Your task to perform on an android device: Do I have any events tomorrow? Image 0: 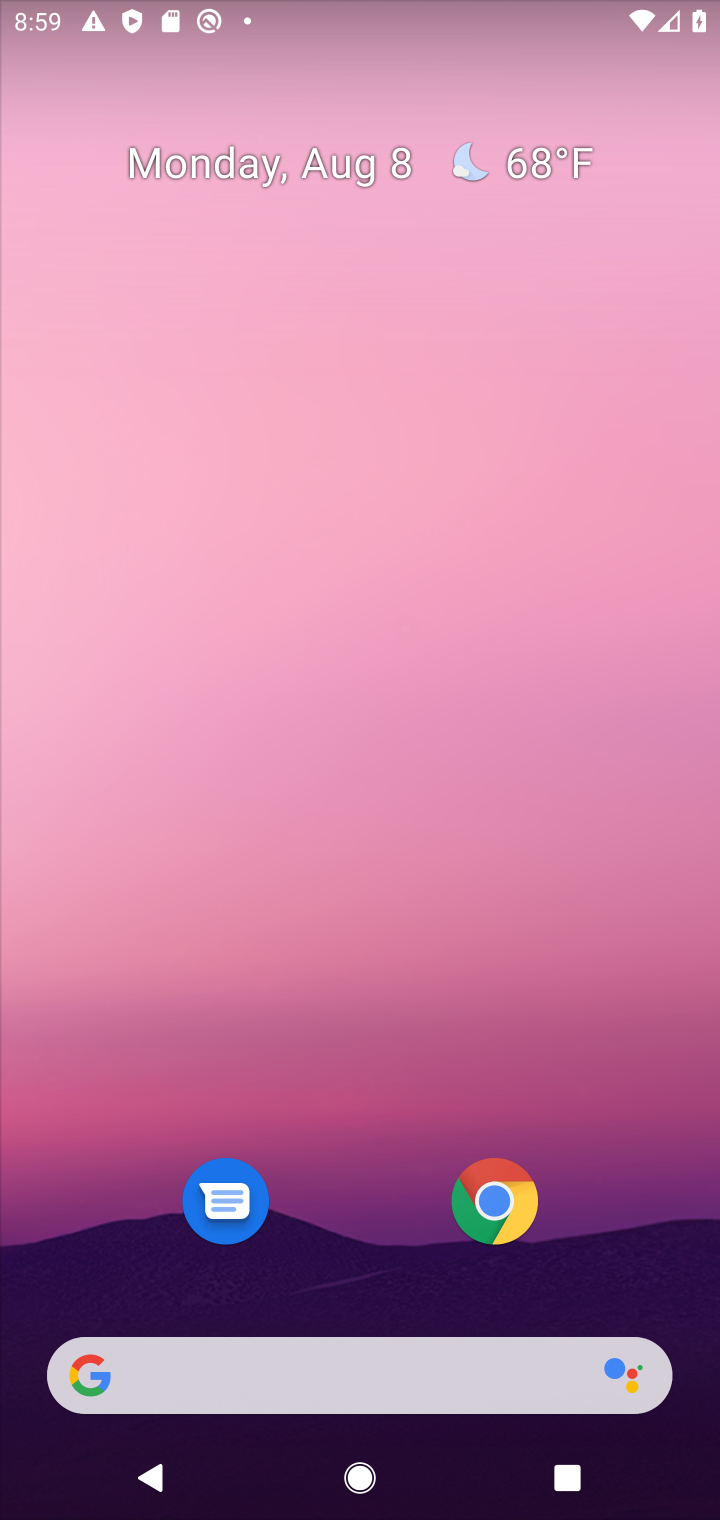
Step 0: press home button
Your task to perform on an android device: Do I have any events tomorrow? Image 1: 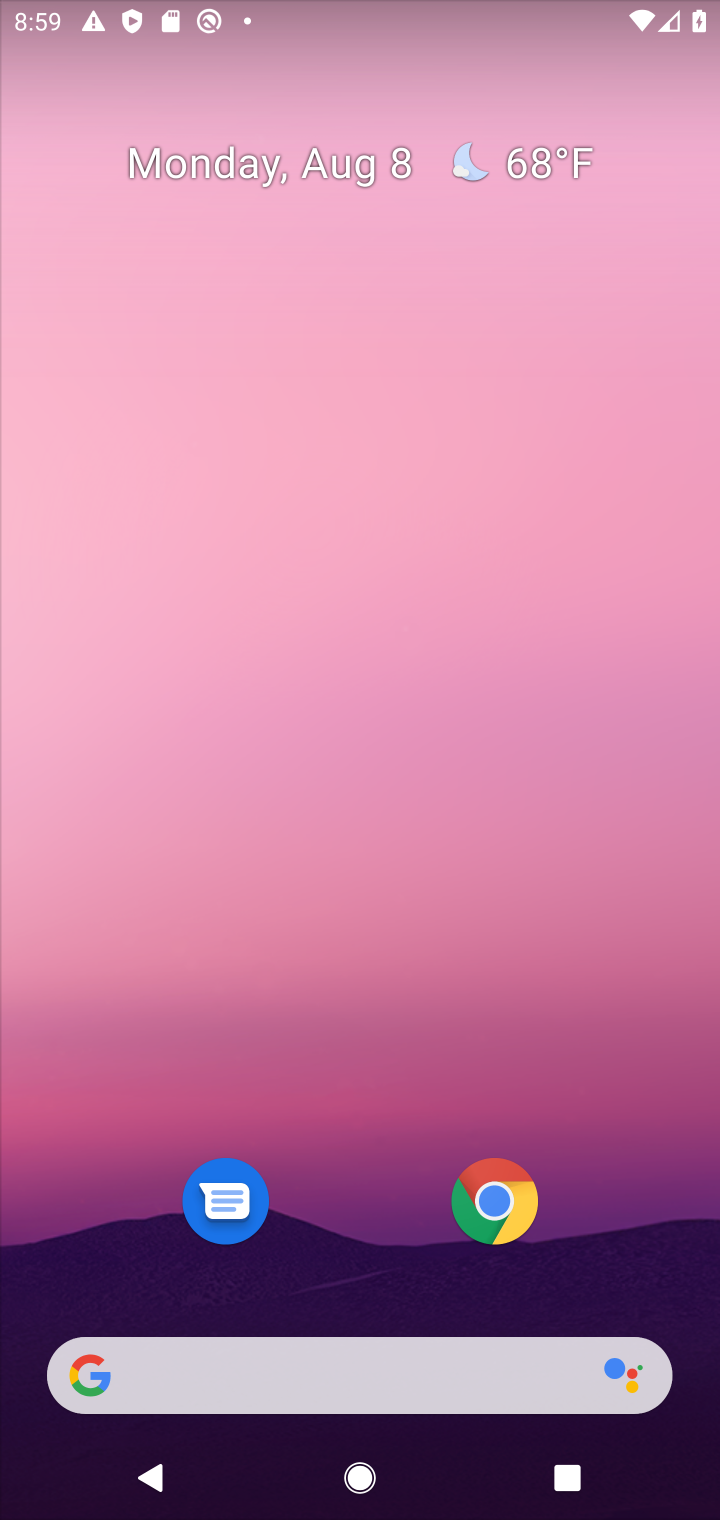
Step 1: drag from (359, 1034) to (429, 200)
Your task to perform on an android device: Do I have any events tomorrow? Image 2: 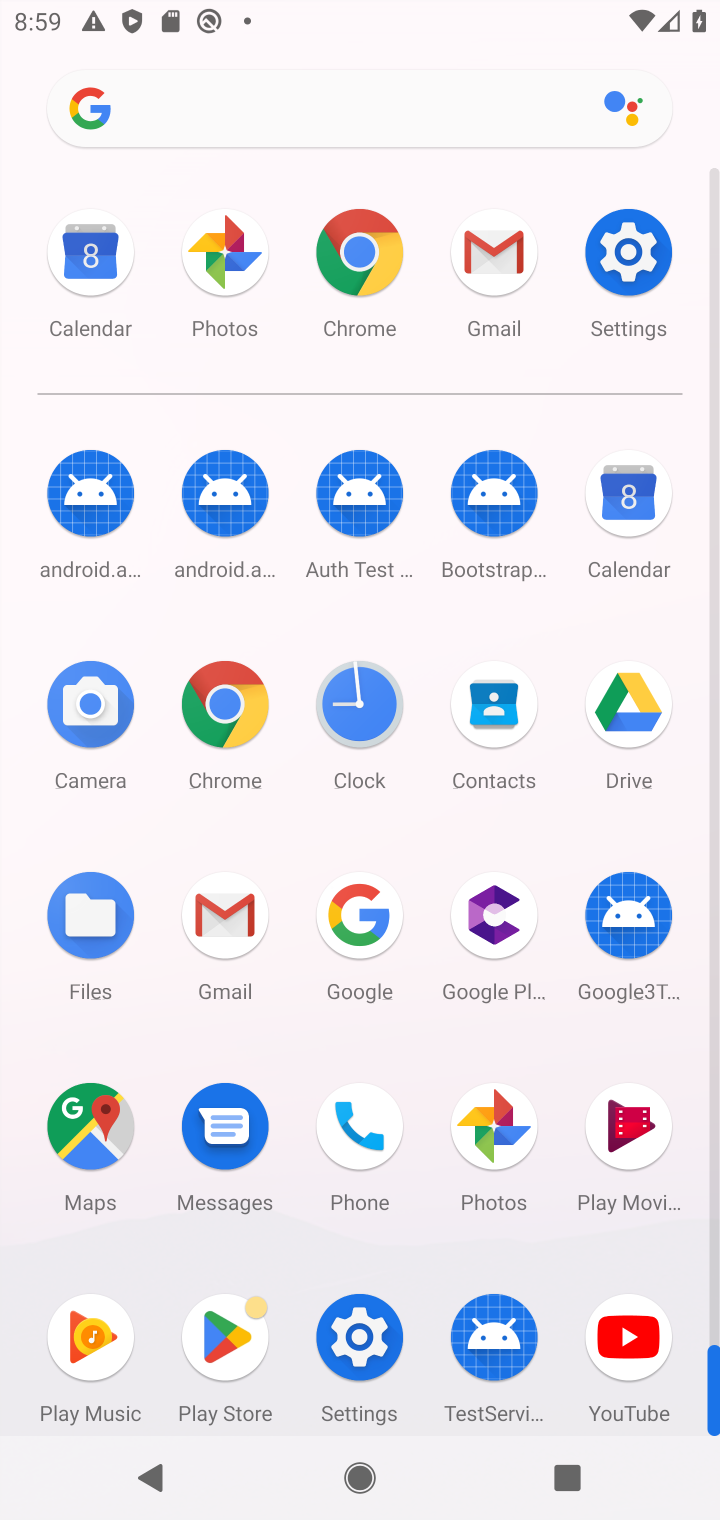
Step 2: click (630, 493)
Your task to perform on an android device: Do I have any events tomorrow? Image 3: 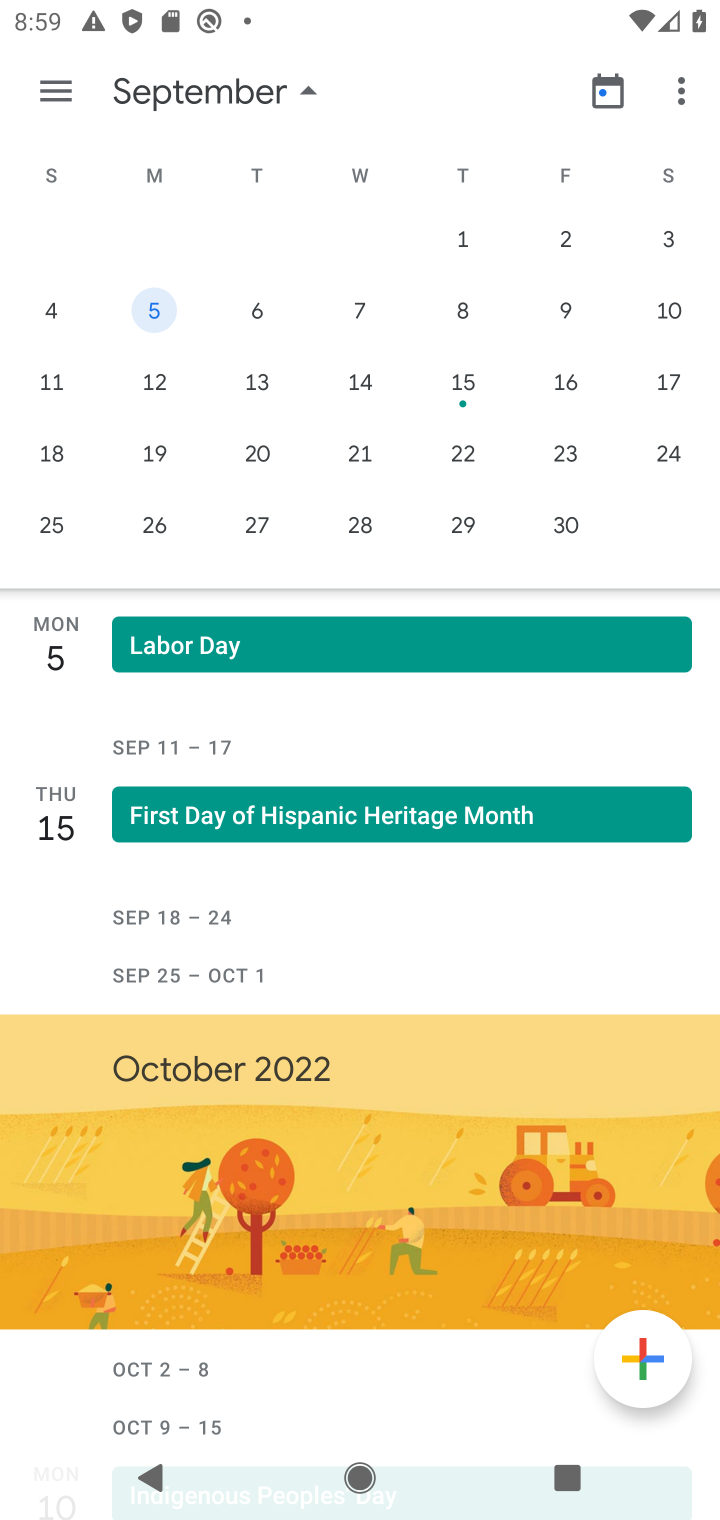
Step 3: task complete